Your task to perform on an android device: Go to display settings Image 0: 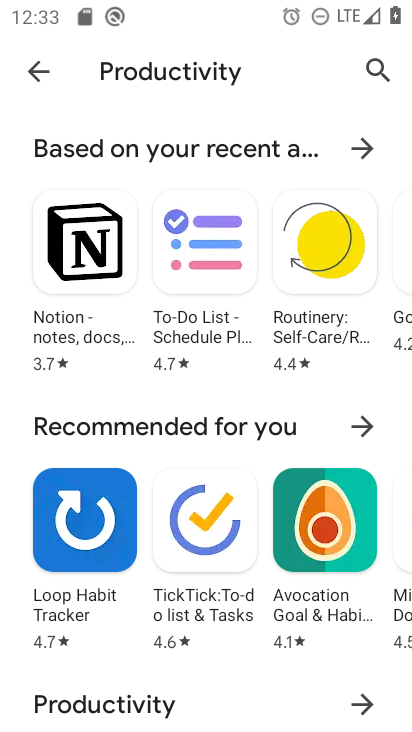
Step 0: press home button
Your task to perform on an android device: Go to display settings Image 1: 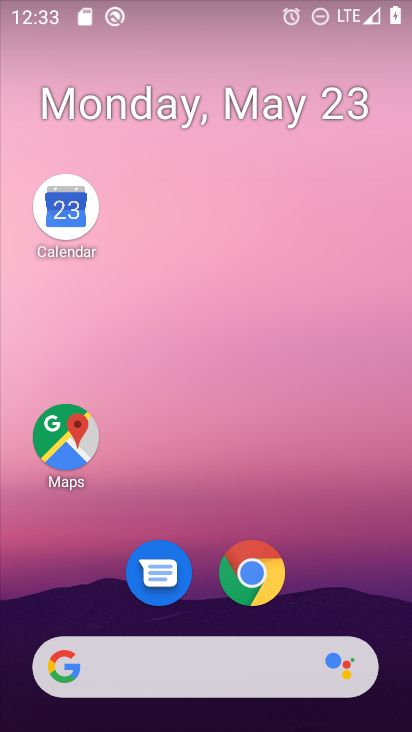
Step 1: drag from (300, 614) to (335, 100)
Your task to perform on an android device: Go to display settings Image 2: 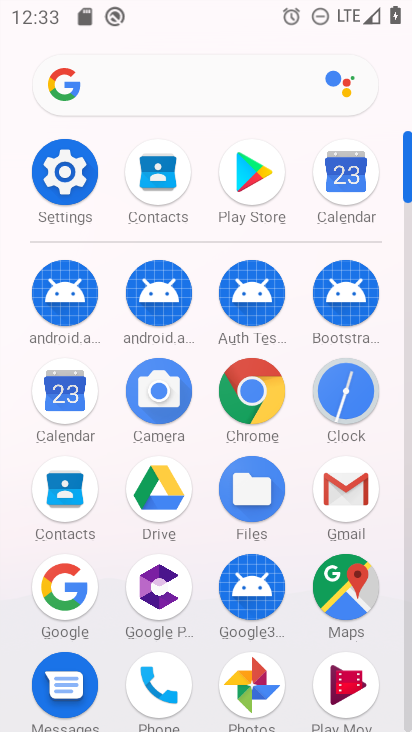
Step 2: click (60, 163)
Your task to perform on an android device: Go to display settings Image 3: 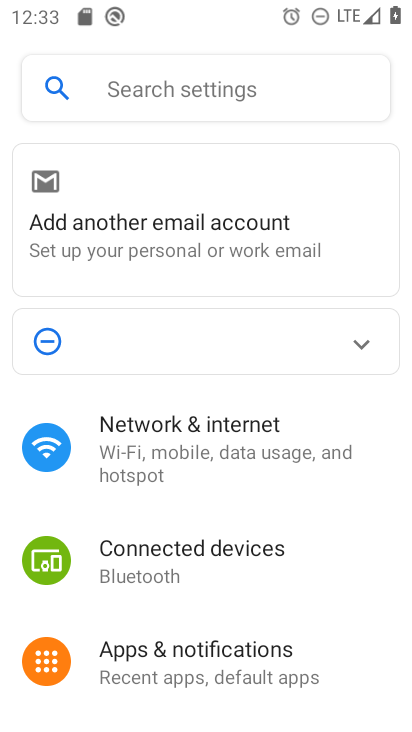
Step 3: drag from (189, 628) to (262, 341)
Your task to perform on an android device: Go to display settings Image 4: 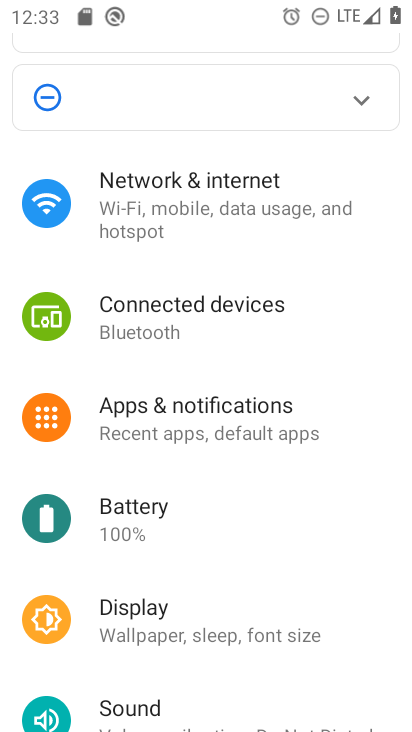
Step 4: click (199, 625)
Your task to perform on an android device: Go to display settings Image 5: 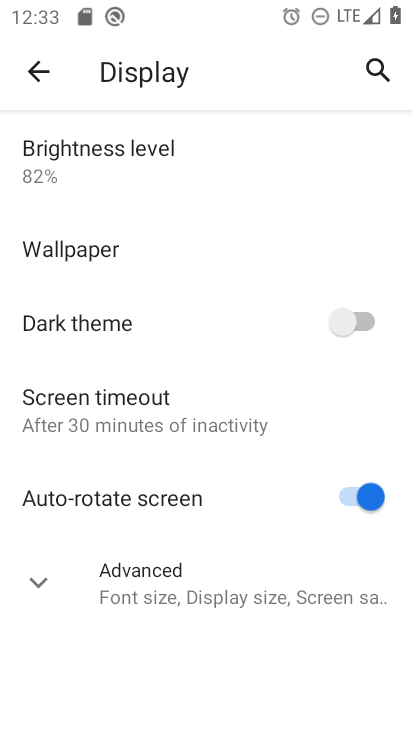
Step 5: task complete